Your task to perform on an android device: empty trash in the gmail app Image 0: 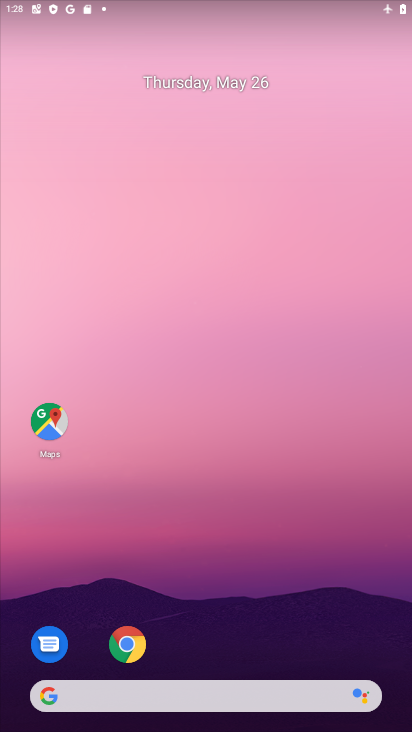
Step 0: drag from (213, 626) to (229, 278)
Your task to perform on an android device: empty trash in the gmail app Image 1: 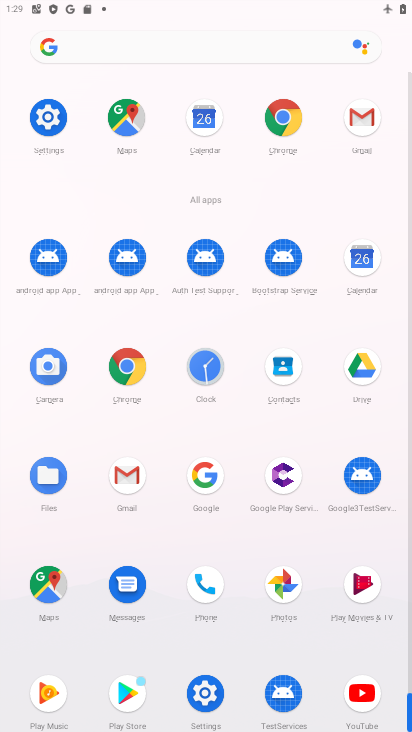
Step 1: click (123, 478)
Your task to perform on an android device: empty trash in the gmail app Image 2: 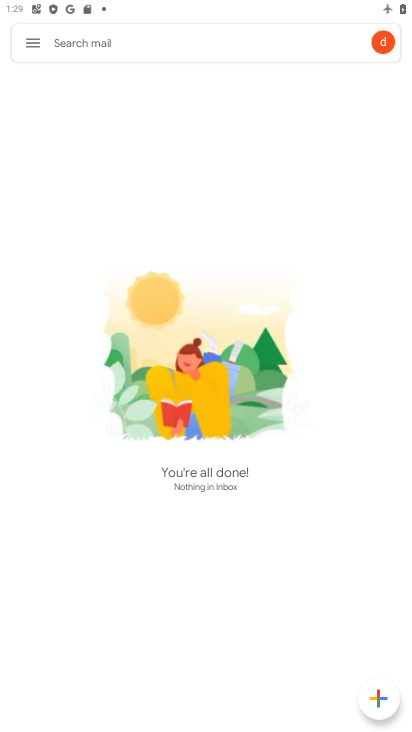
Step 2: click (30, 39)
Your task to perform on an android device: empty trash in the gmail app Image 3: 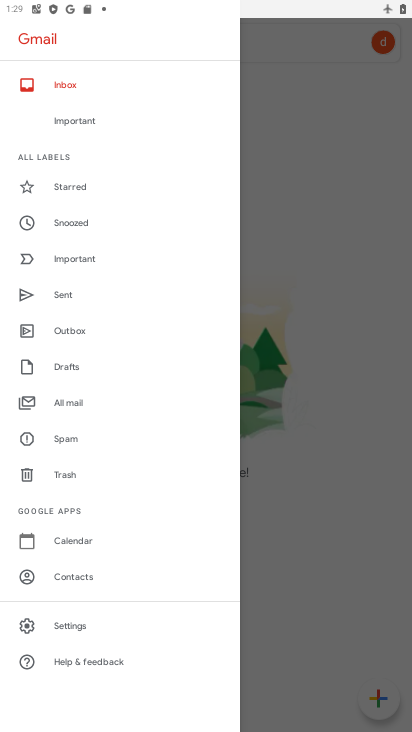
Step 3: click (97, 464)
Your task to perform on an android device: empty trash in the gmail app Image 4: 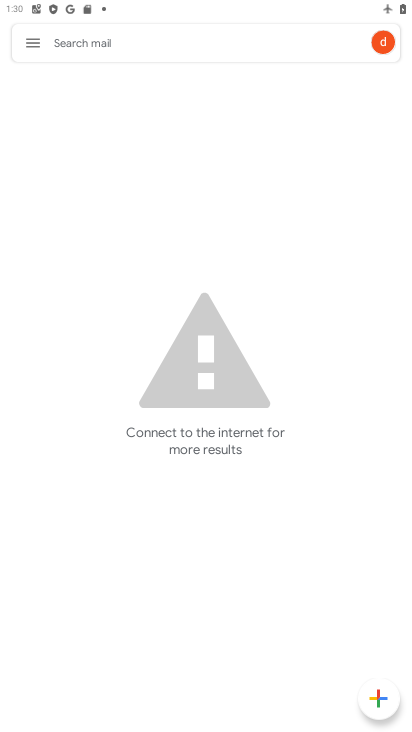
Step 4: task complete